Your task to perform on an android device: open a bookmark in the chrome app Image 0: 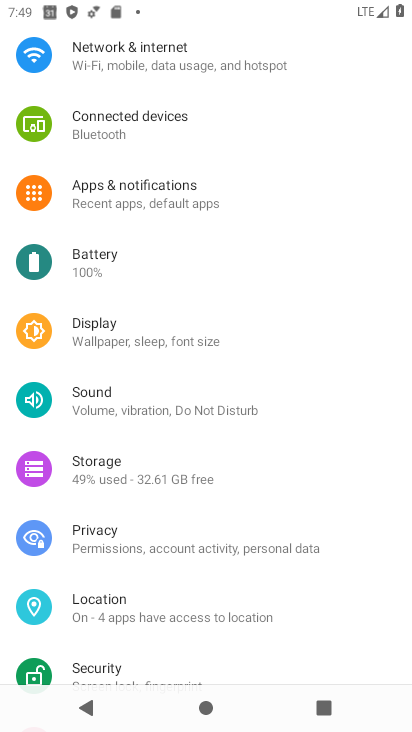
Step 0: press home button
Your task to perform on an android device: open a bookmark in the chrome app Image 1: 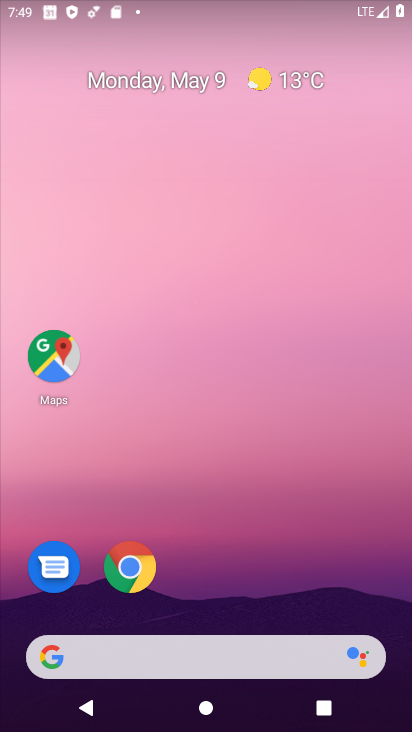
Step 1: click (134, 565)
Your task to perform on an android device: open a bookmark in the chrome app Image 2: 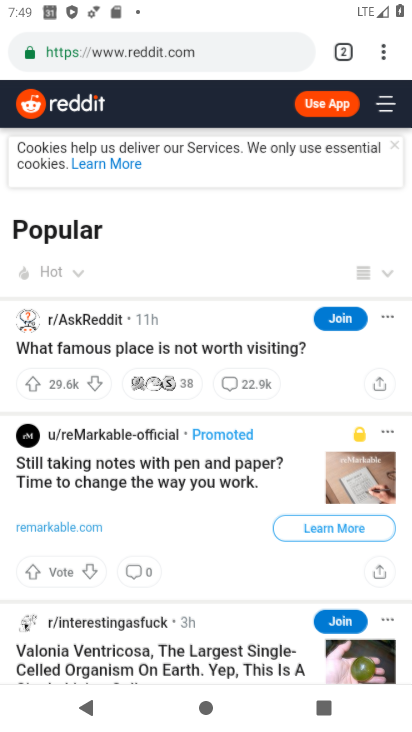
Step 2: click (134, 565)
Your task to perform on an android device: open a bookmark in the chrome app Image 3: 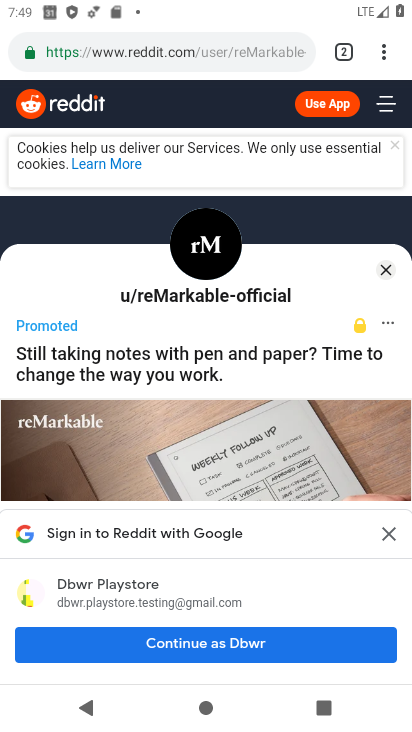
Step 3: click (379, 46)
Your task to perform on an android device: open a bookmark in the chrome app Image 4: 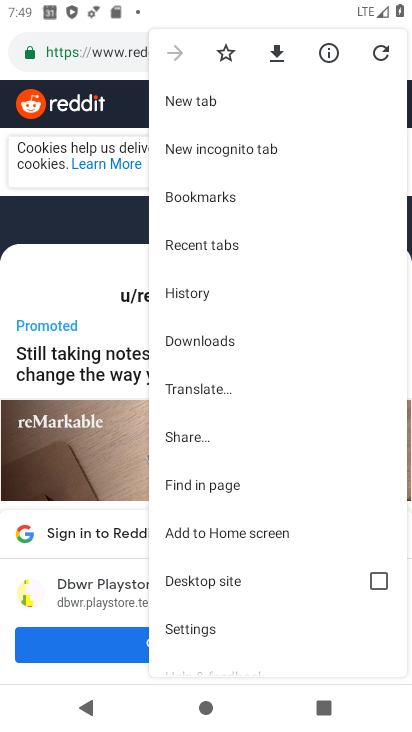
Step 4: click (216, 190)
Your task to perform on an android device: open a bookmark in the chrome app Image 5: 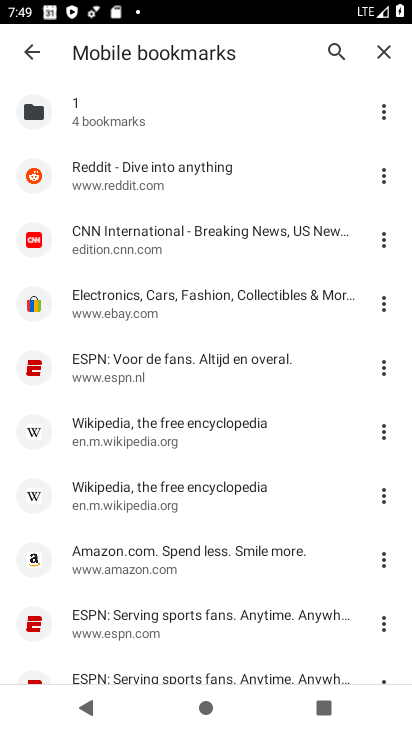
Step 5: click (199, 223)
Your task to perform on an android device: open a bookmark in the chrome app Image 6: 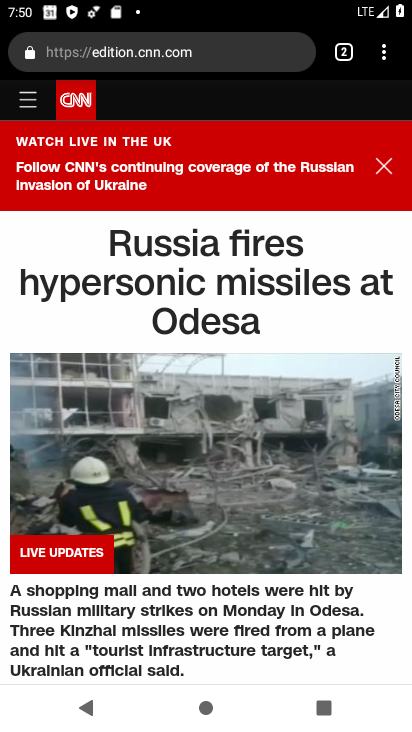
Step 6: task complete